Your task to perform on an android device: Show me the alarms in the clock app Image 0: 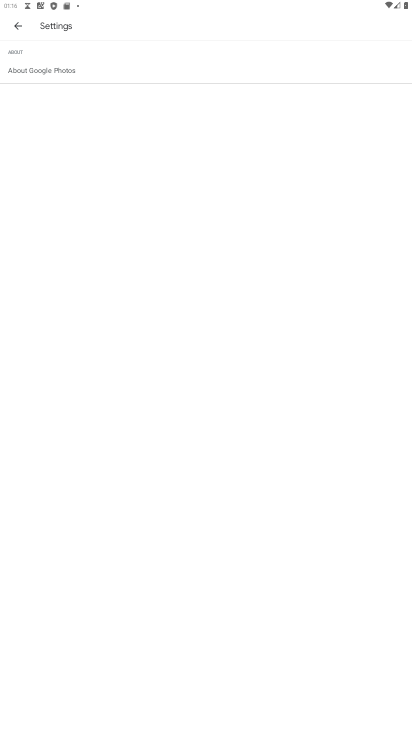
Step 0: press home button
Your task to perform on an android device: Show me the alarms in the clock app Image 1: 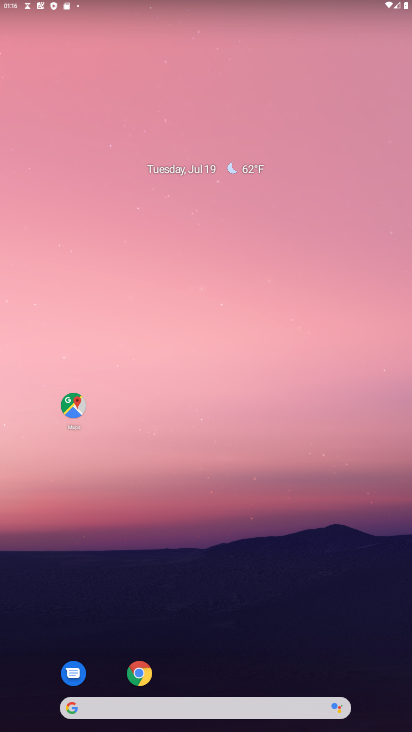
Step 1: drag from (226, 679) to (157, 150)
Your task to perform on an android device: Show me the alarms in the clock app Image 2: 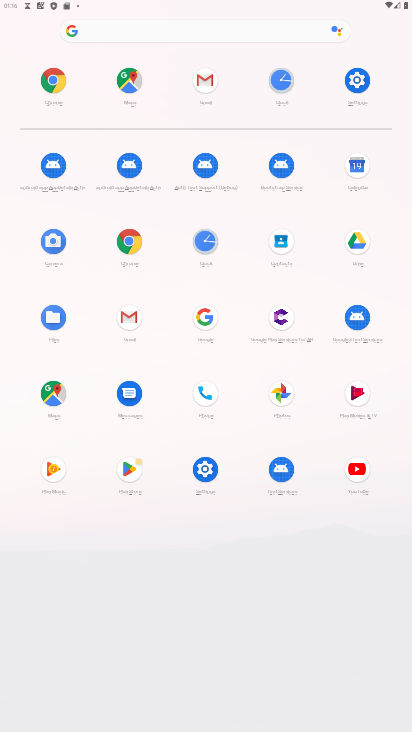
Step 2: click (213, 242)
Your task to perform on an android device: Show me the alarms in the clock app Image 3: 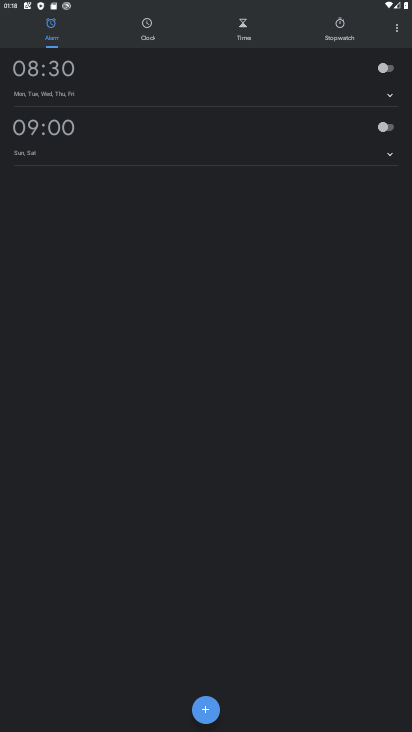
Step 3: task complete